Your task to perform on an android device: install app "WhatsApp Messenger" Image 0: 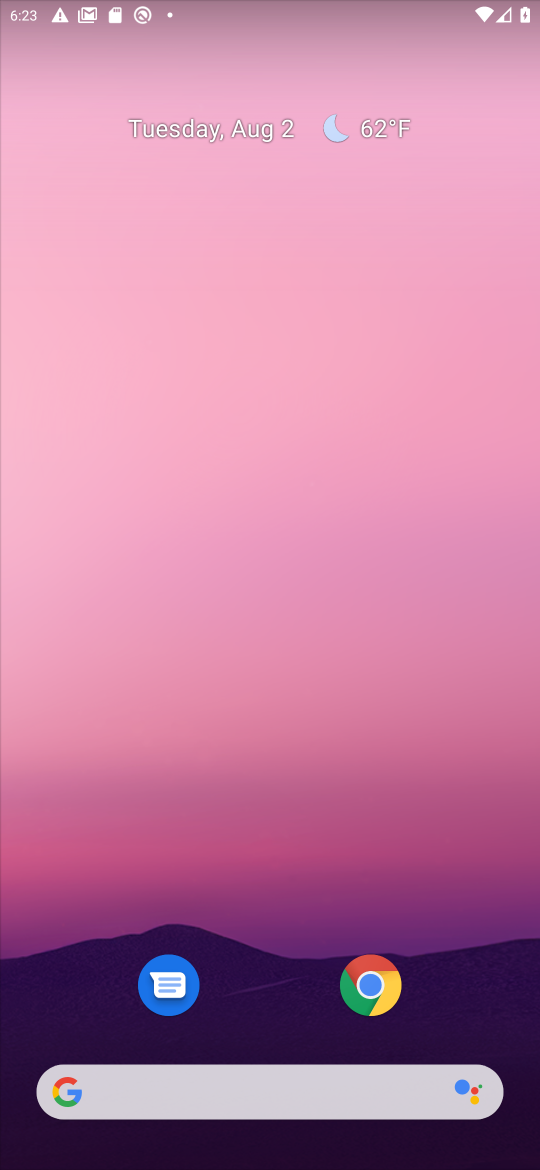
Step 0: drag from (237, 992) to (202, 415)
Your task to perform on an android device: install app "WhatsApp Messenger" Image 1: 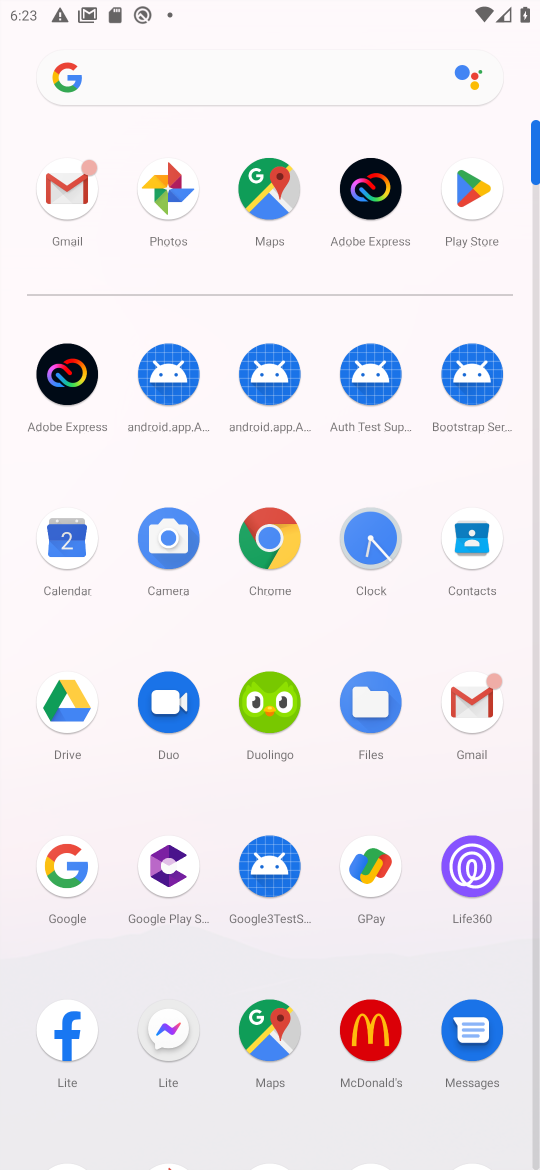
Step 1: click (462, 214)
Your task to perform on an android device: install app "WhatsApp Messenger" Image 2: 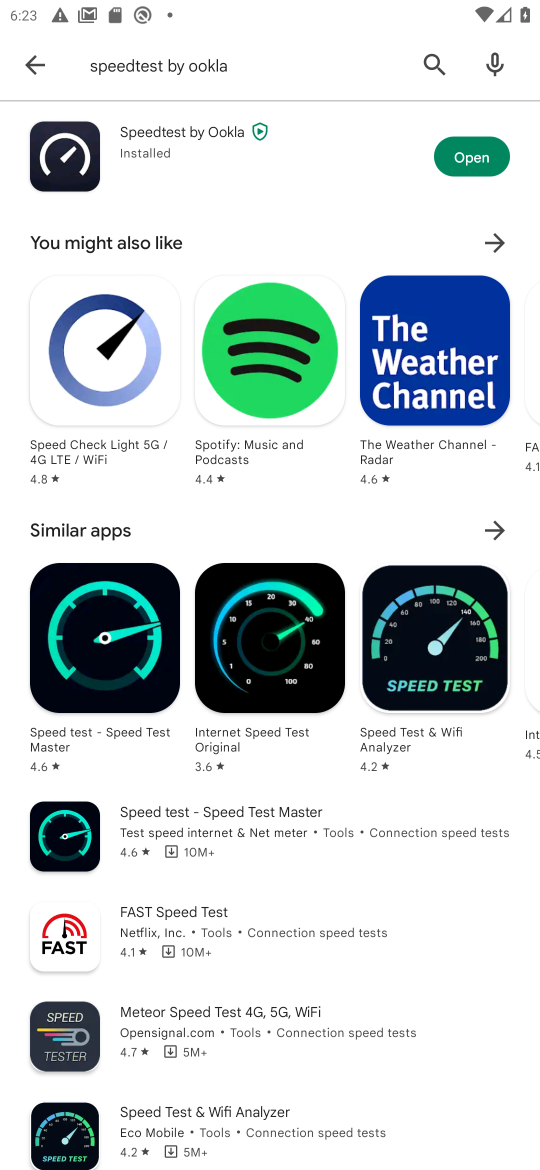
Step 2: click (432, 62)
Your task to perform on an android device: install app "WhatsApp Messenger" Image 3: 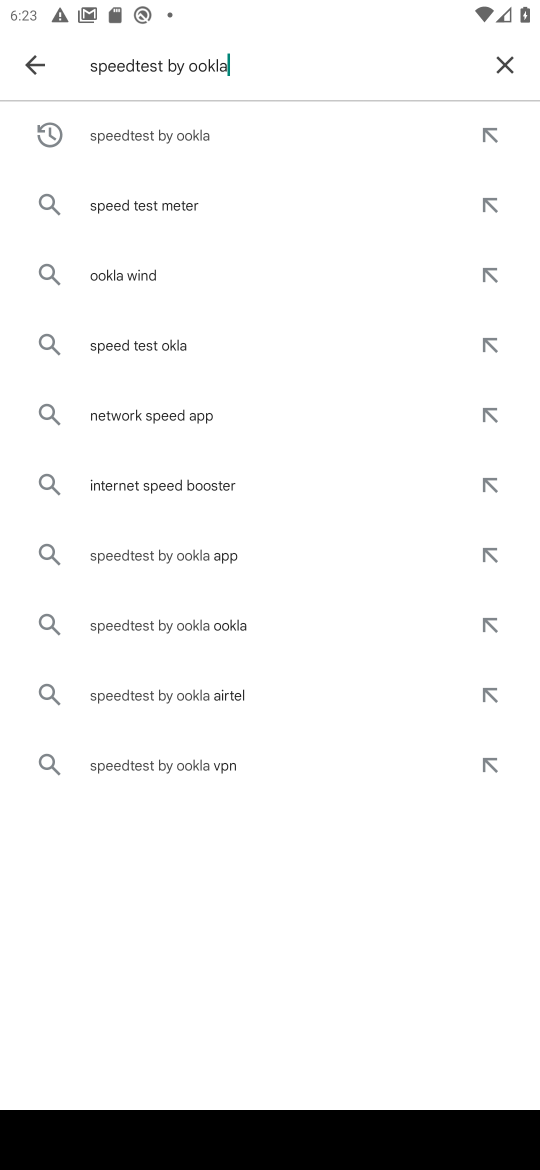
Step 3: click (484, 74)
Your task to perform on an android device: install app "WhatsApp Messenger" Image 4: 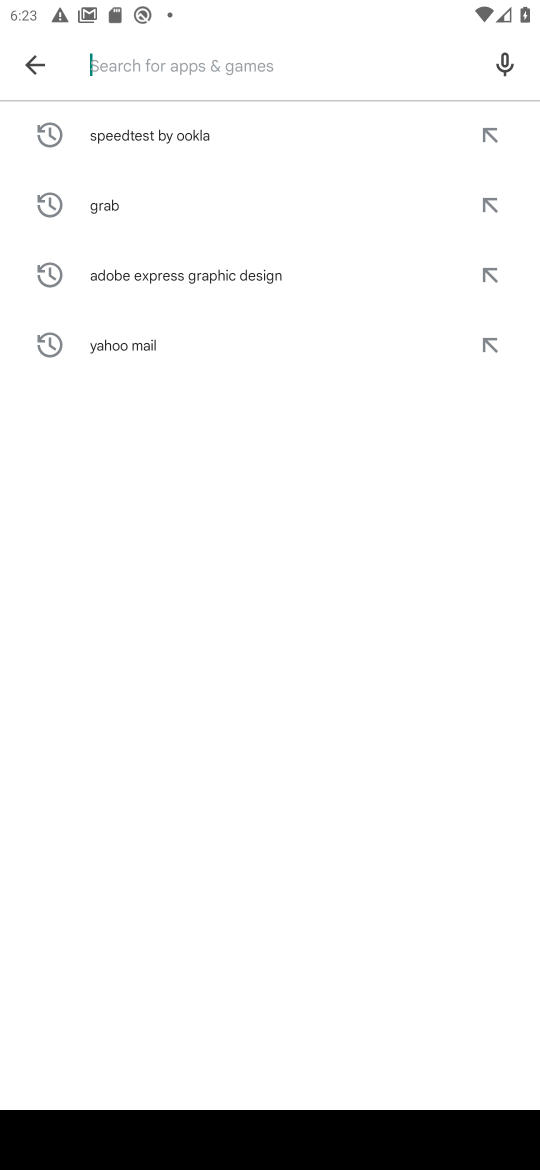
Step 4: type "WhatsApp Messenger"
Your task to perform on an android device: install app "WhatsApp Messenger" Image 5: 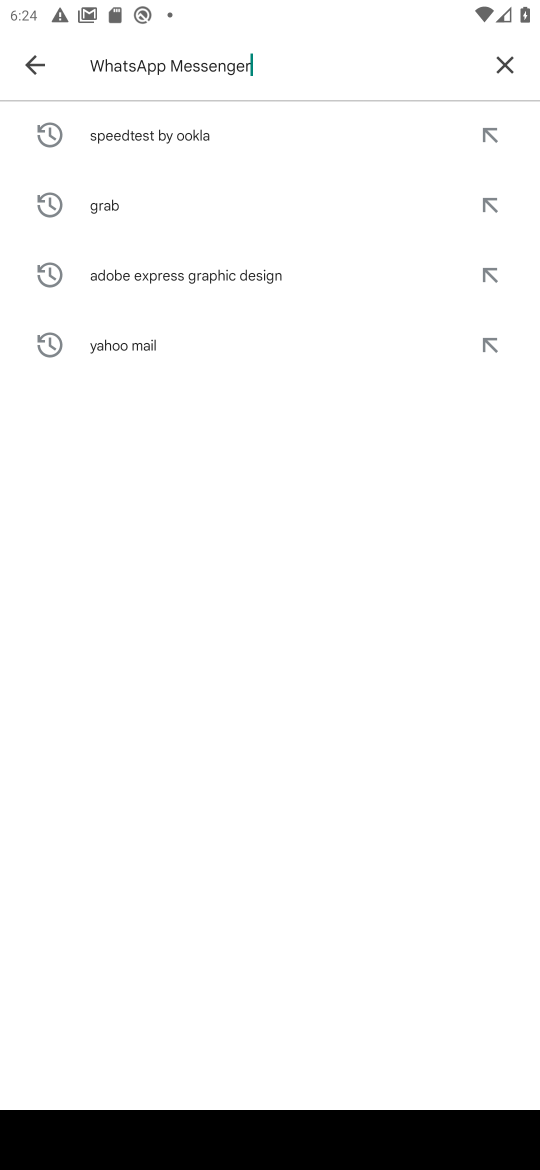
Step 5: type ""
Your task to perform on an android device: install app "WhatsApp Messenger" Image 6: 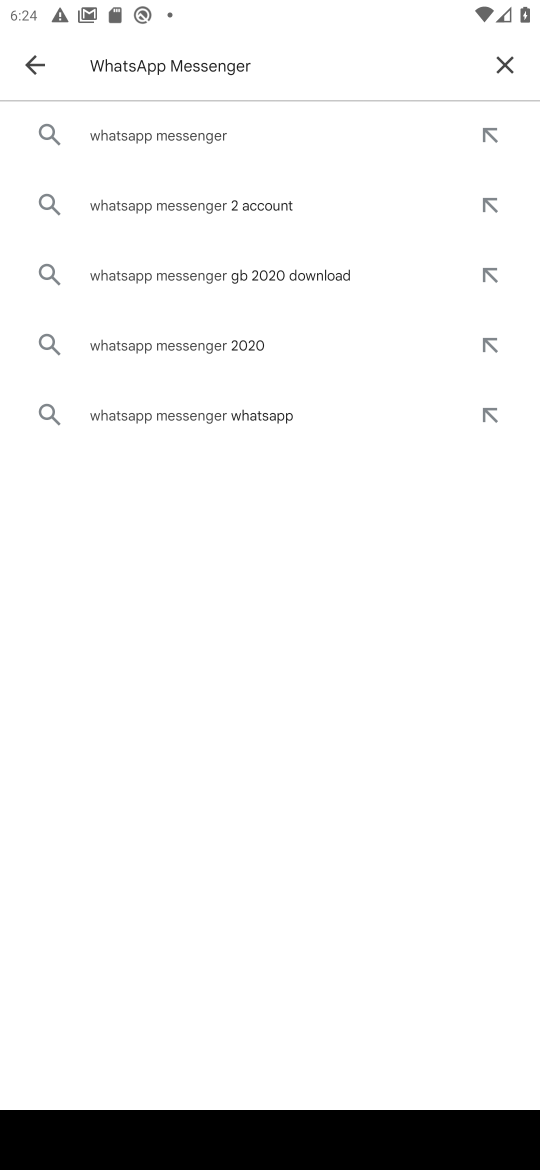
Step 6: click (159, 134)
Your task to perform on an android device: install app "WhatsApp Messenger" Image 7: 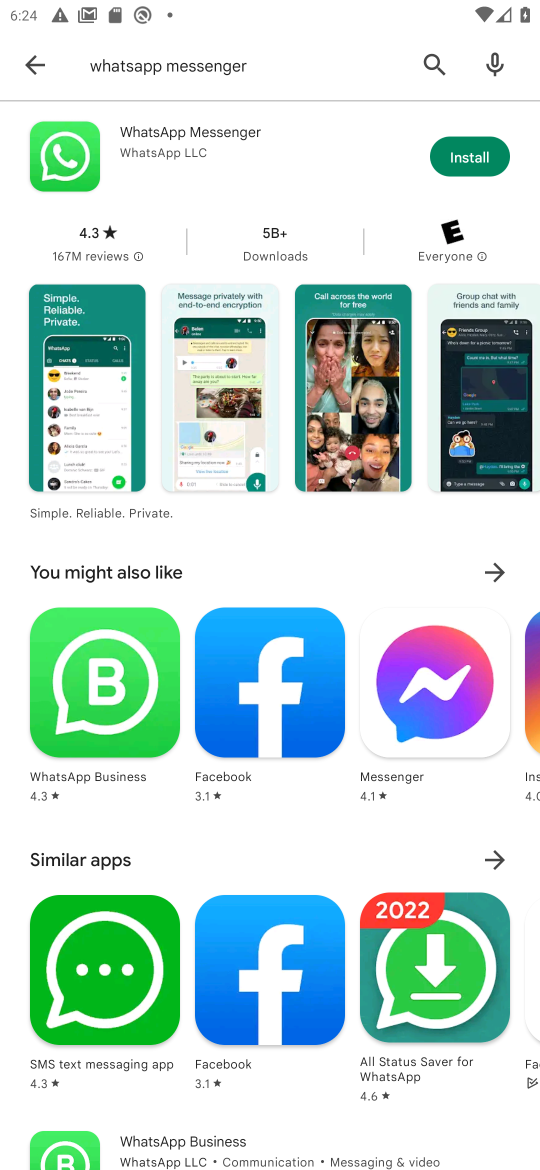
Step 7: click (452, 150)
Your task to perform on an android device: install app "WhatsApp Messenger" Image 8: 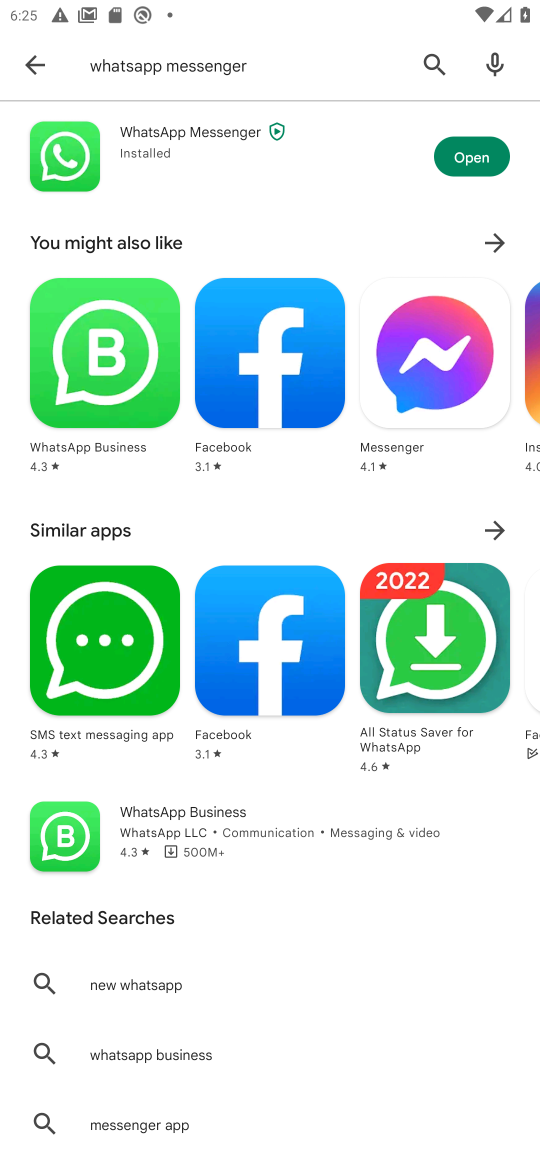
Step 8: click (470, 143)
Your task to perform on an android device: install app "WhatsApp Messenger" Image 9: 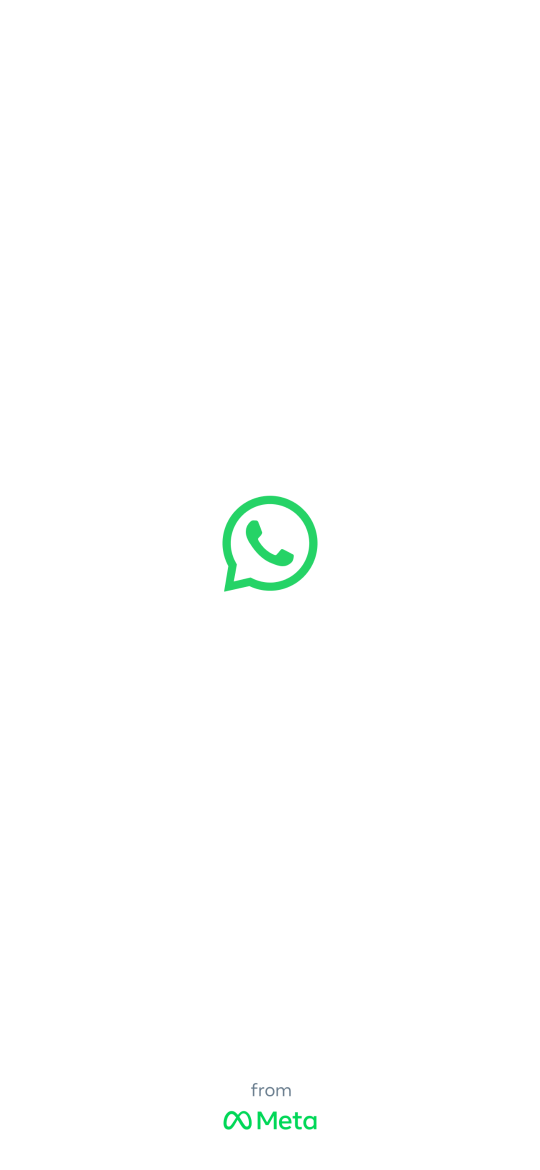
Step 9: task complete